Your task to perform on an android device: Do I have any events today? Image 0: 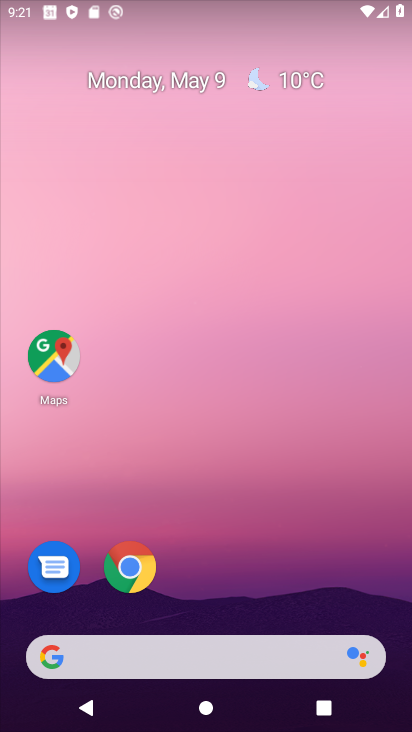
Step 0: drag from (229, 540) to (267, 24)
Your task to perform on an android device: Do I have any events today? Image 1: 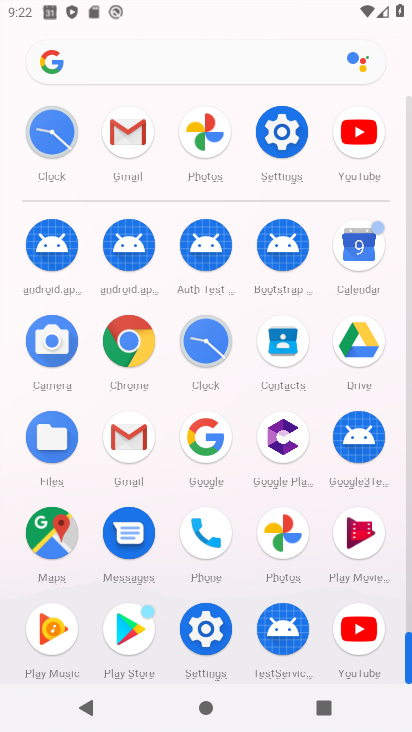
Step 1: click (351, 241)
Your task to perform on an android device: Do I have any events today? Image 2: 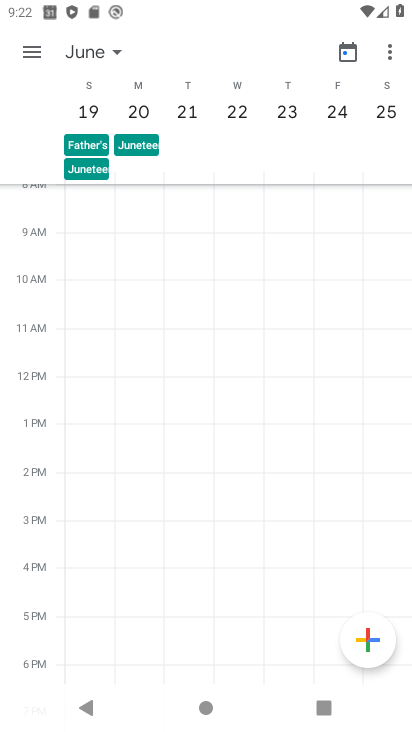
Step 2: drag from (75, 232) to (406, 324)
Your task to perform on an android device: Do I have any events today? Image 3: 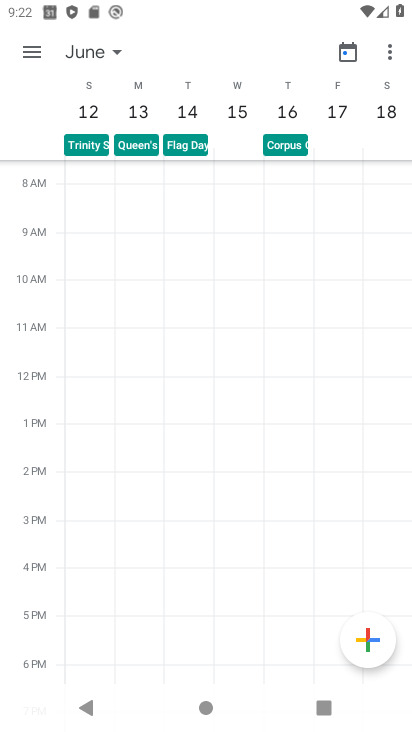
Step 3: drag from (76, 299) to (410, 321)
Your task to perform on an android device: Do I have any events today? Image 4: 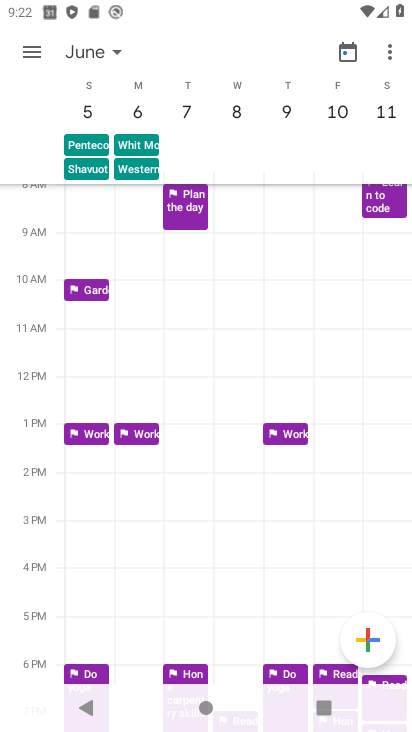
Step 4: drag from (66, 334) to (406, 350)
Your task to perform on an android device: Do I have any events today? Image 5: 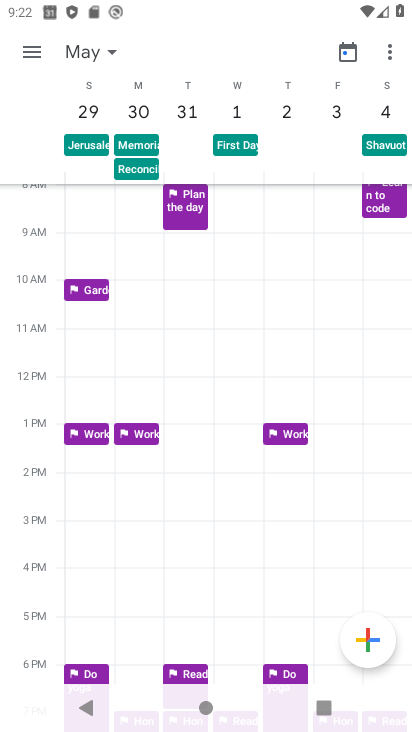
Step 5: drag from (70, 356) to (411, 359)
Your task to perform on an android device: Do I have any events today? Image 6: 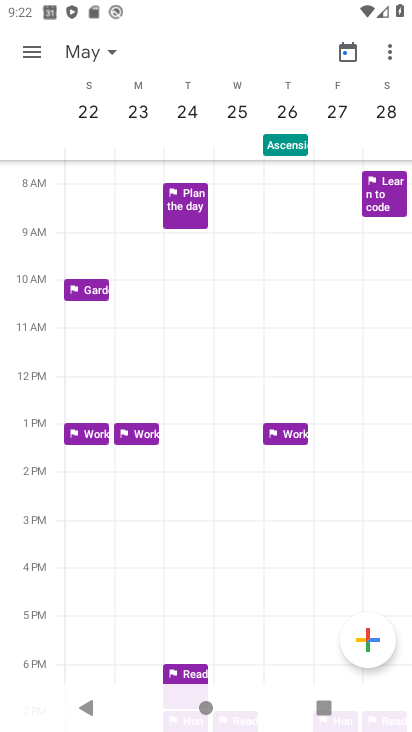
Step 6: drag from (86, 381) to (411, 368)
Your task to perform on an android device: Do I have any events today? Image 7: 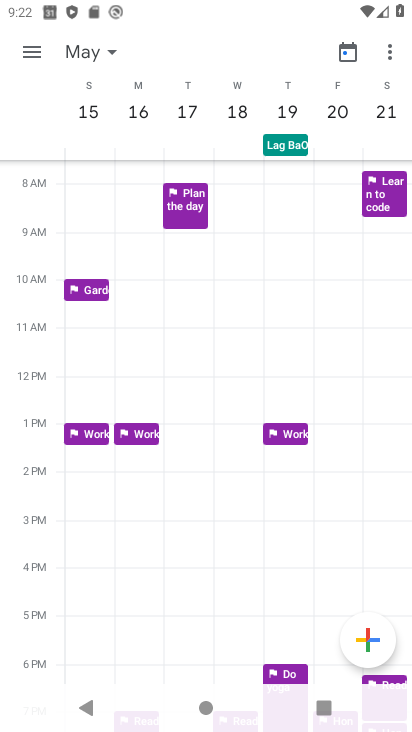
Step 7: drag from (95, 355) to (411, 368)
Your task to perform on an android device: Do I have any events today? Image 8: 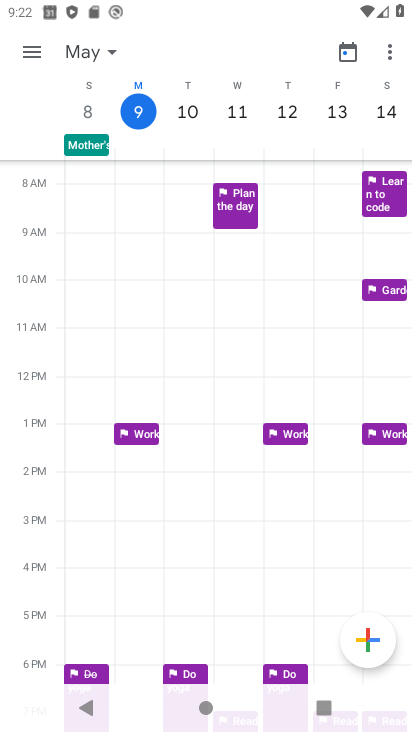
Step 8: click (140, 103)
Your task to perform on an android device: Do I have any events today? Image 9: 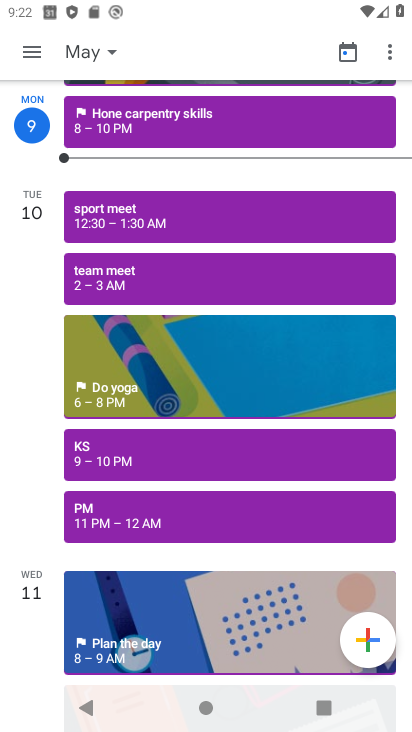
Step 9: task complete